Your task to perform on an android device: Open Yahoo.com Image 0: 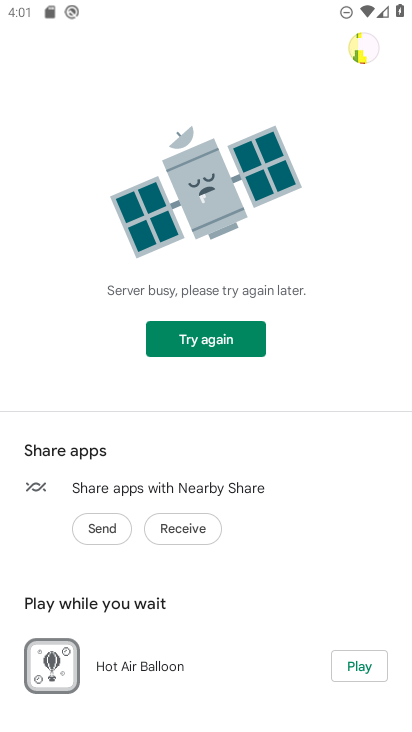
Step 0: press home button
Your task to perform on an android device: Open Yahoo.com Image 1: 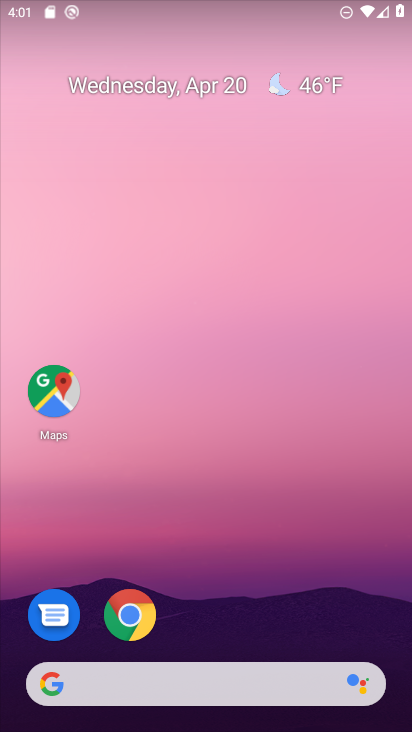
Step 1: drag from (273, 534) to (304, 149)
Your task to perform on an android device: Open Yahoo.com Image 2: 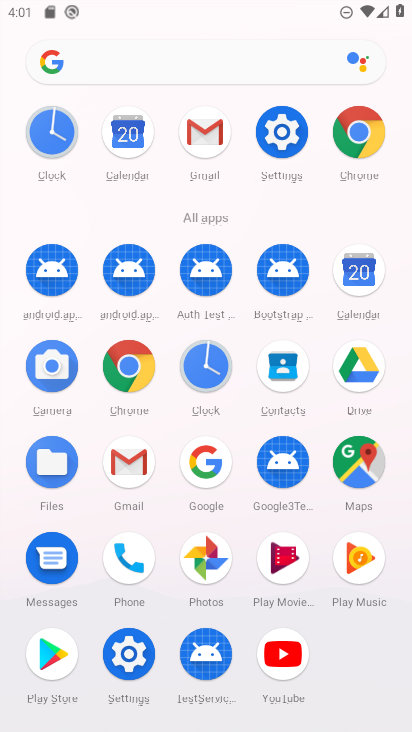
Step 2: click (291, 663)
Your task to perform on an android device: Open Yahoo.com Image 3: 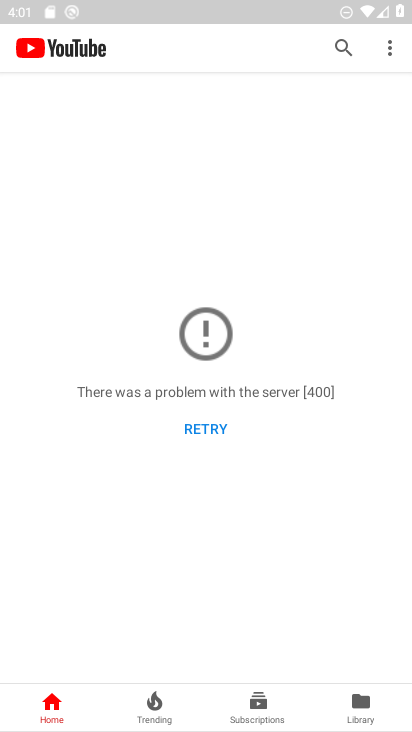
Step 3: press home button
Your task to perform on an android device: Open Yahoo.com Image 4: 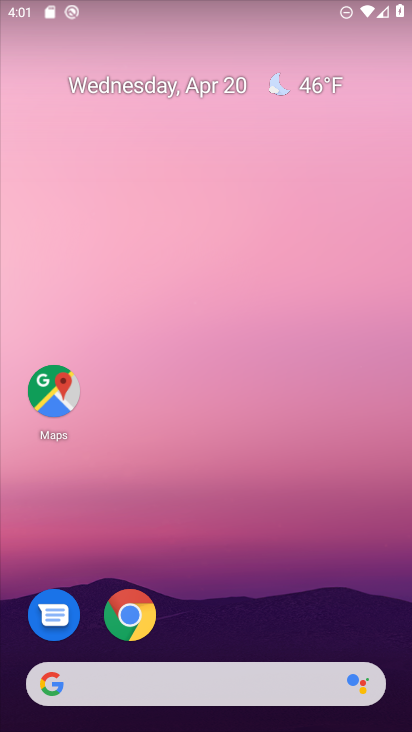
Step 4: drag from (334, 473) to (335, 159)
Your task to perform on an android device: Open Yahoo.com Image 5: 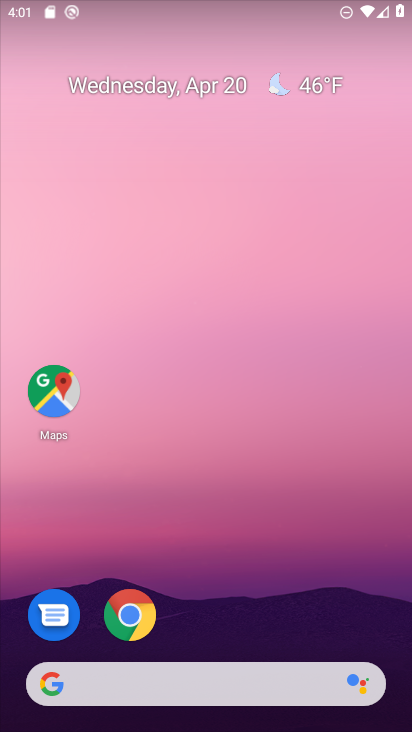
Step 5: drag from (211, 580) to (328, 131)
Your task to perform on an android device: Open Yahoo.com Image 6: 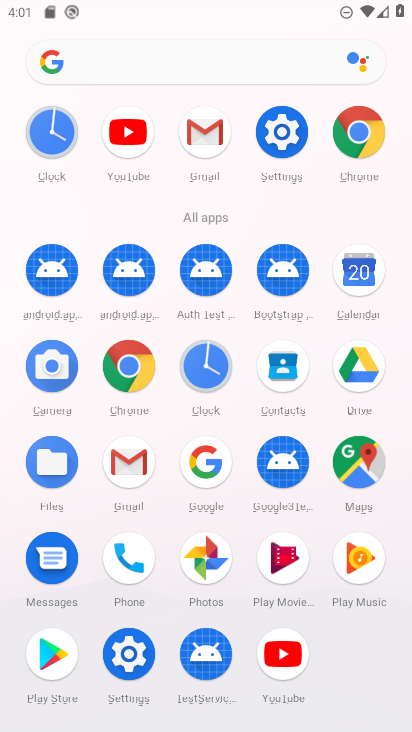
Step 6: click (362, 138)
Your task to perform on an android device: Open Yahoo.com Image 7: 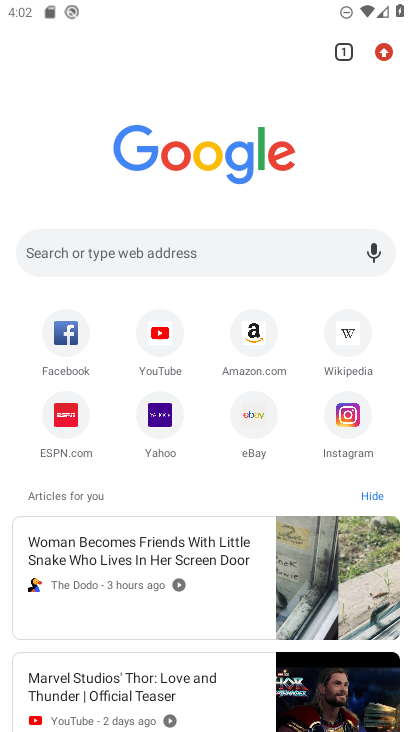
Step 7: click (162, 425)
Your task to perform on an android device: Open Yahoo.com Image 8: 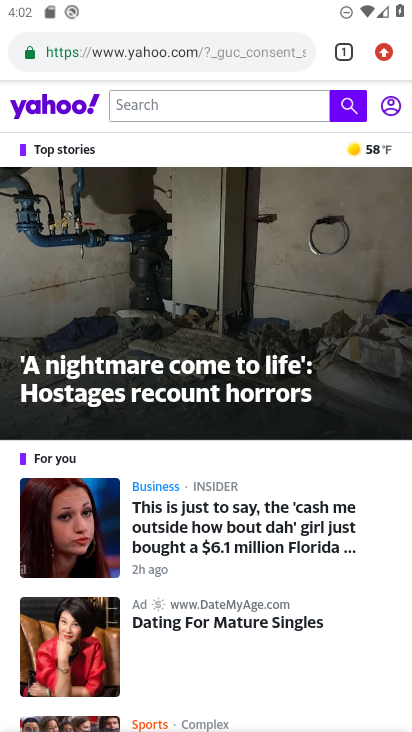
Step 8: click (355, 264)
Your task to perform on an android device: Open Yahoo.com Image 9: 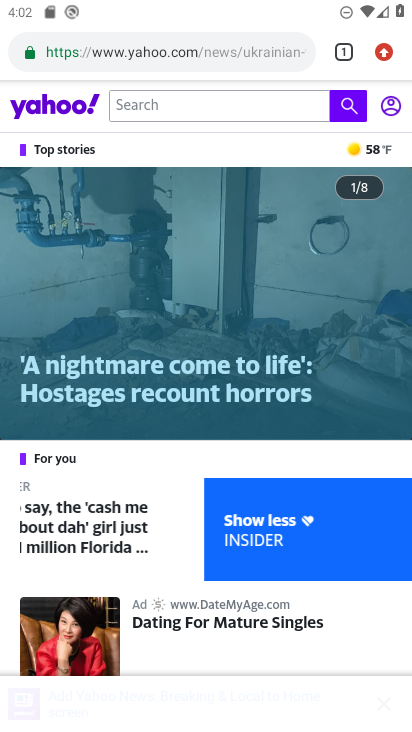
Step 9: task complete